Your task to perform on an android device: Open calendar and show me the second week of next month Image 0: 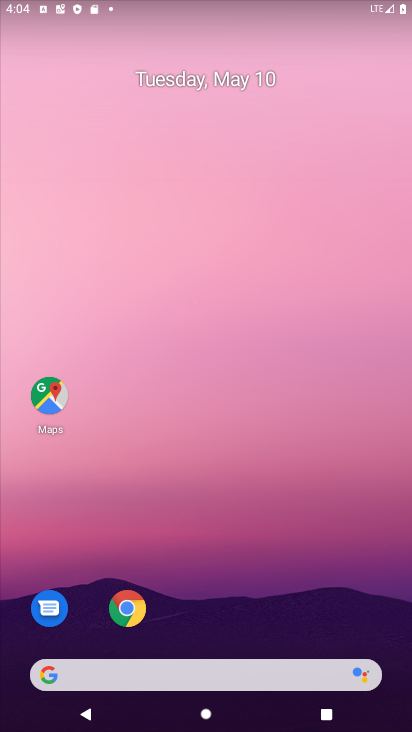
Step 0: drag from (379, 630) to (296, 83)
Your task to perform on an android device: Open calendar and show me the second week of next month Image 1: 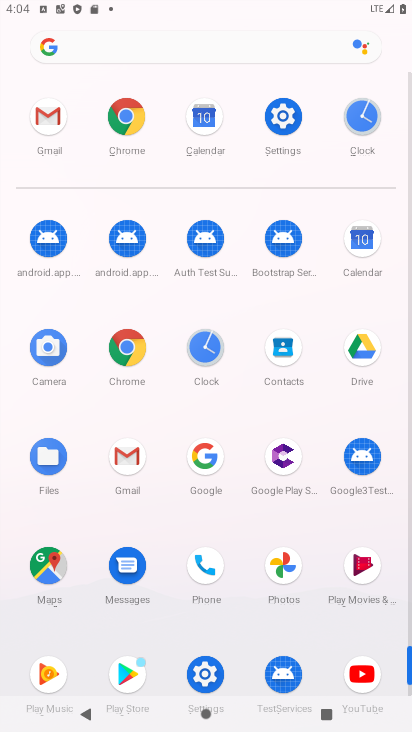
Step 1: click (363, 237)
Your task to perform on an android device: Open calendar and show me the second week of next month Image 2: 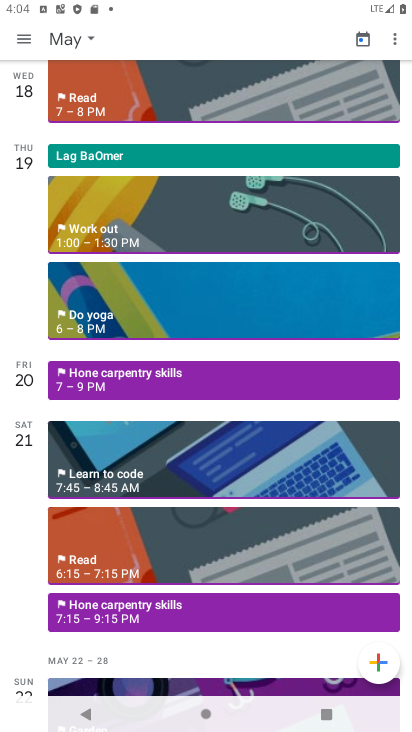
Step 2: click (23, 41)
Your task to perform on an android device: Open calendar and show me the second week of next month Image 3: 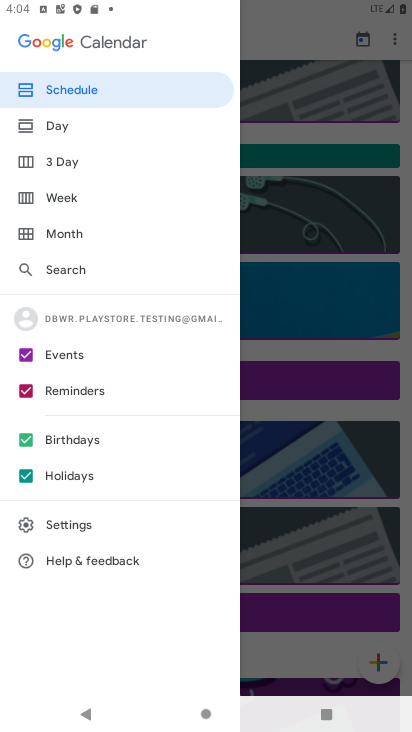
Step 3: click (46, 197)
Your task to perform on an android device: Open calendar and show me the second week of next month Image 4: 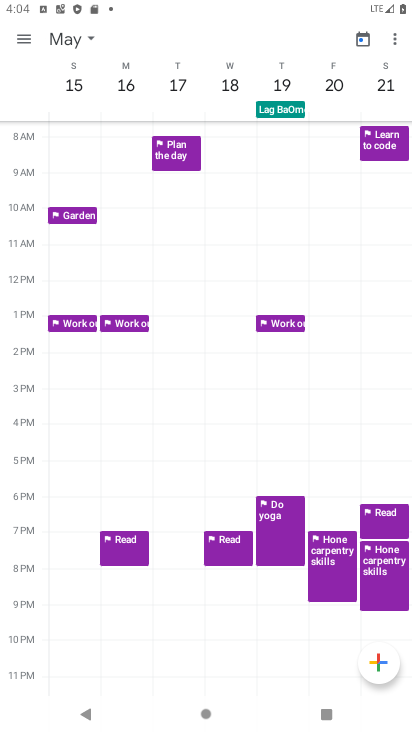
Step 4: click (93, 35)
Your task to perform on an android device: Open calendar and show me the second week of next month Image 5: 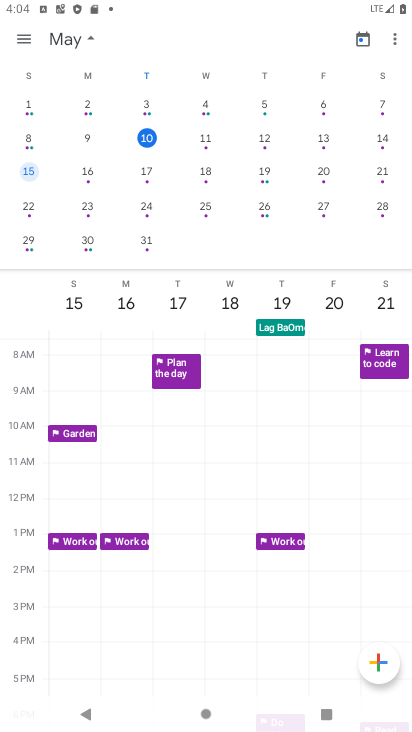
Step 5: drag from (380, 173) to (30, 167)
Your task to perform on an android device: Open calendar and show me the second week of next month Image 6: 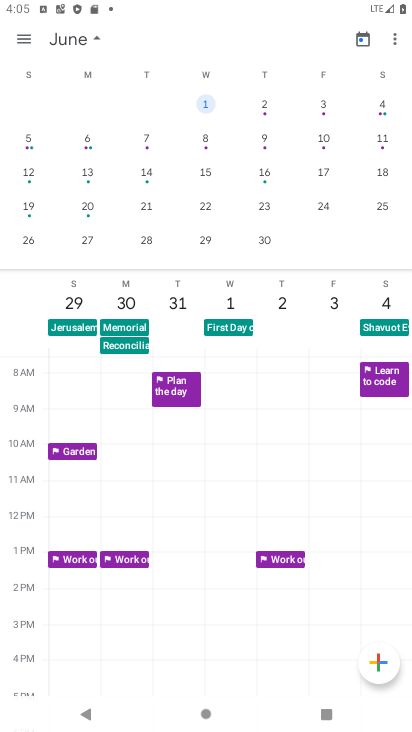
Step 6: click (20, 138)
Your task to perform on an android device: Open calendar and show me the second week of next month Image 7: 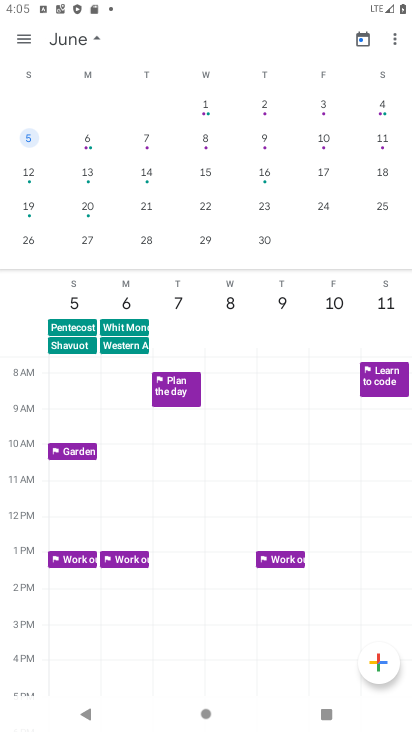
Step 7: task complete